Your task to perform on an android device: delete the emails in spam in the gmail app Image 0: 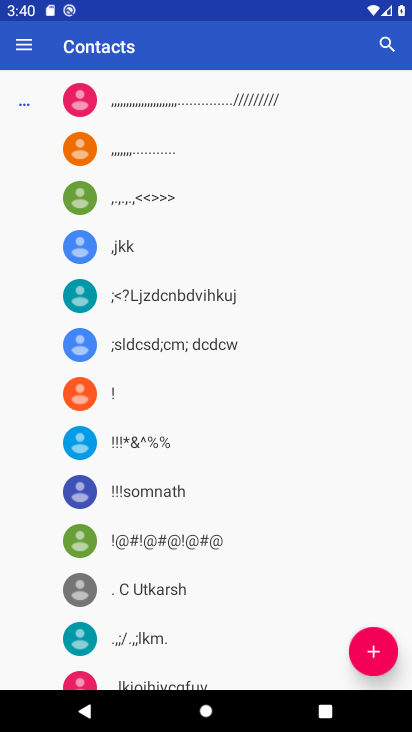
Step 0: press home button
Your task to perform on an android device: delete the emails in spam in the gmail app Image 1: 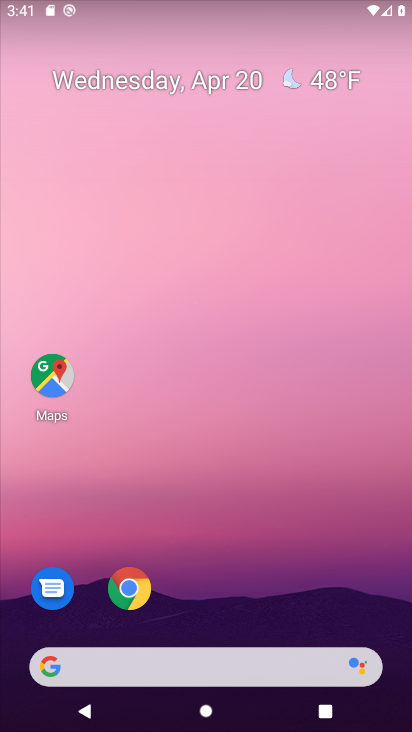
Step 1: drag from (339, 592) to (351, 145)
Your task to perform on an android device: delete the emails in spam in the gmail app Image 2: 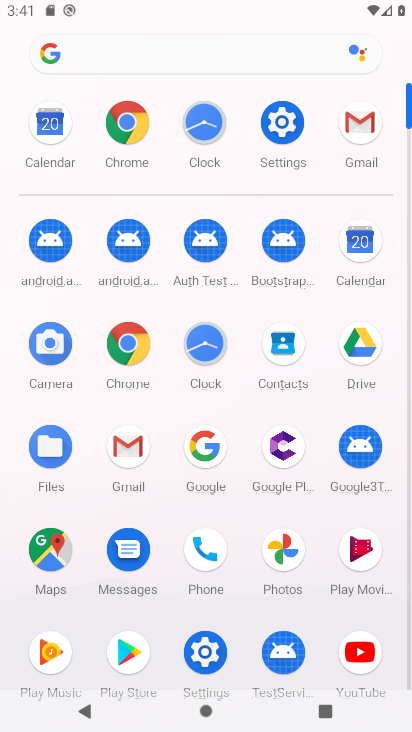
Step 2: click (132, 447)
Your task to perform on an android device: delete the emails in spam in the gmail app Image 3: 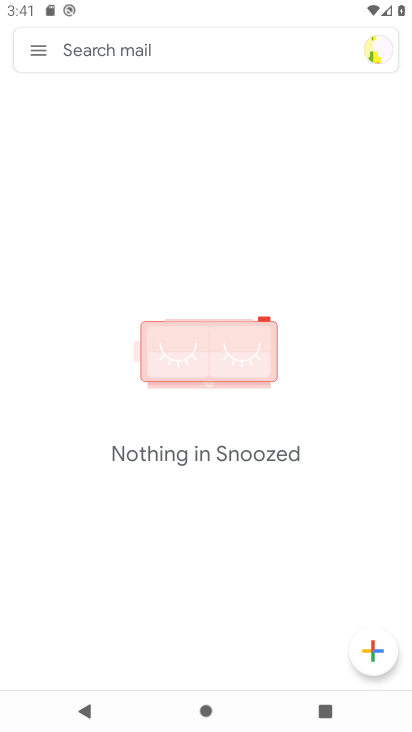
Step 3: click (31, 40)
Your task to perform on an android device: delete the emails in spam in the gmail app Image 4: 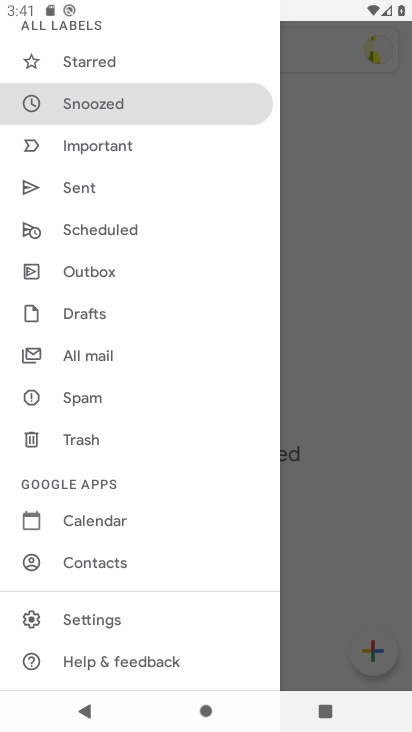
Step 4: drag from (217, 206) to (364, 505)
Your task to perform on an android device: delete the emails in spam in the gmail app Image 5: 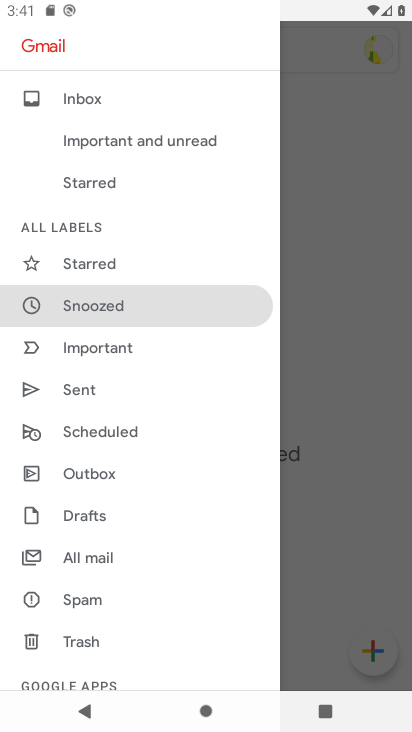
Step 5: click (74, 103)
Your task to perform on an android device: delete the emails in spam in the gmail app Image 6: 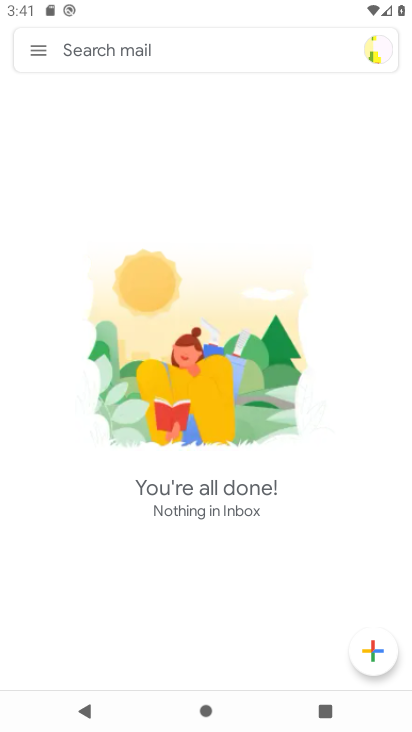
Step 6: task complete